Your task to perform on an android device: check battery use Image 0: 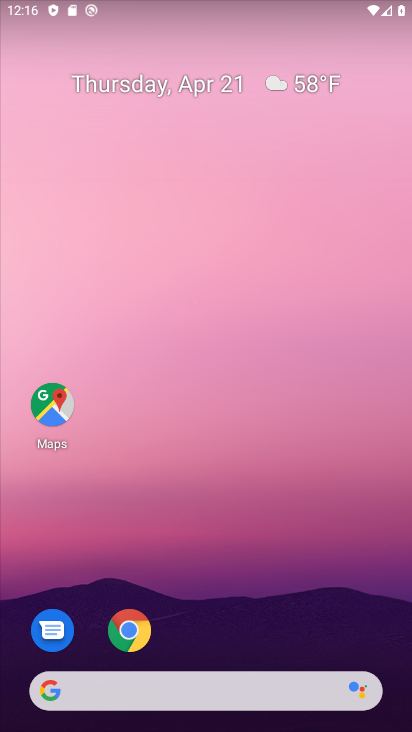
Step 0: drag from (155, 642) to (268, 157)
Your task to perform on an android device: check battery use Image 1: 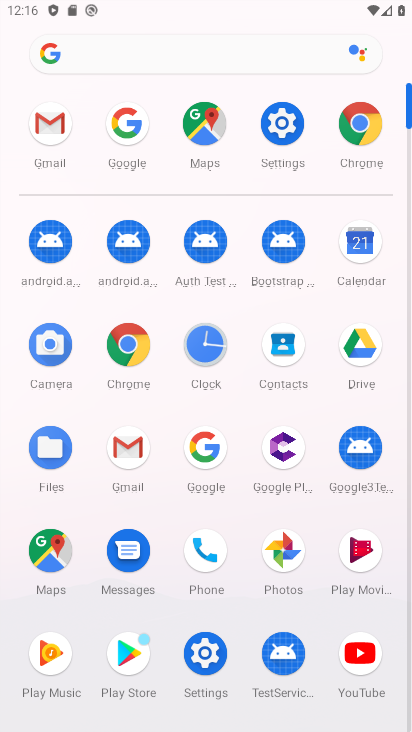
Step 1: click (285, 130)
Your task to perform on an android device: check battery use Image 2: 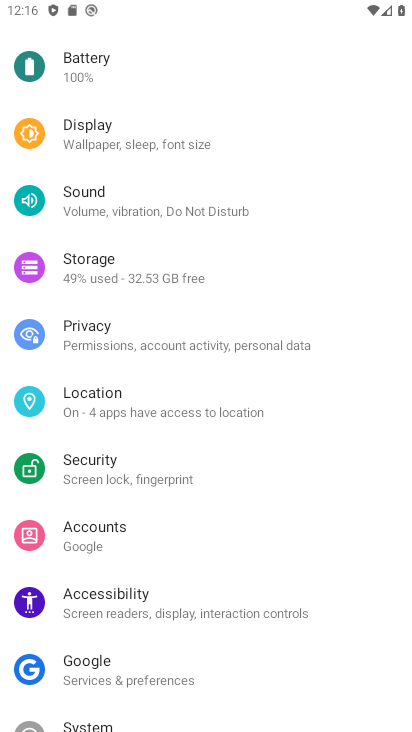
Step 2: click (95, 66)
Your task to perform on an android device: check battery use Image 3: 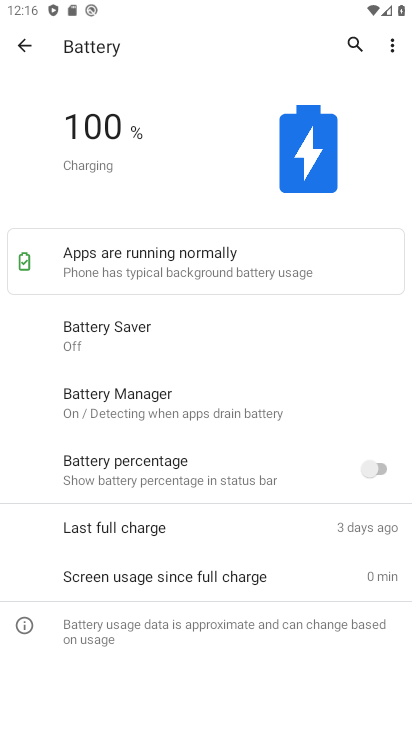
Step 3: click (392, 43)
Your task to perform on an android device: check battery use Image 4: 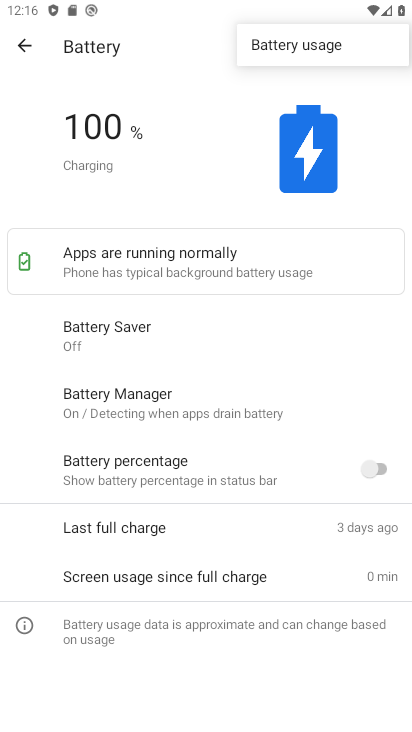
Step 4: click (336, 37)
Your task to perform on an android device: check battery use Image 5: 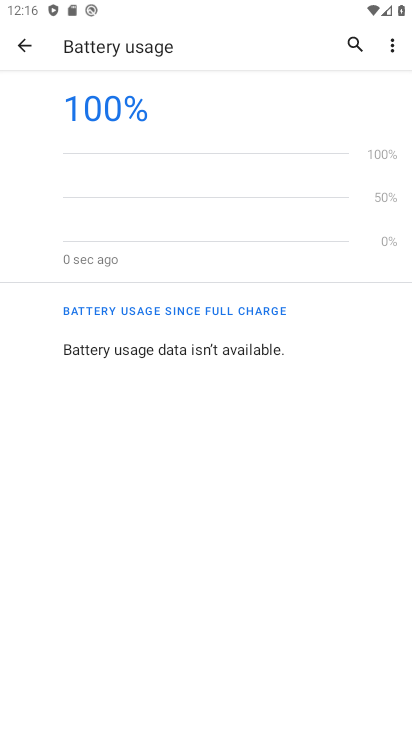
Step 5: task complete